Your task to perform on an android device: all mails in gmail Image 0: 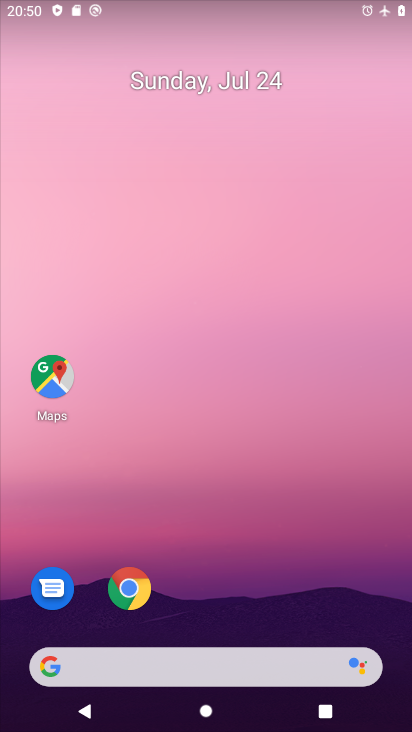
Step 0: drag from (181, 606) to (176, 147)
Your task to perform on an android device: all mails in gmail Image 1: 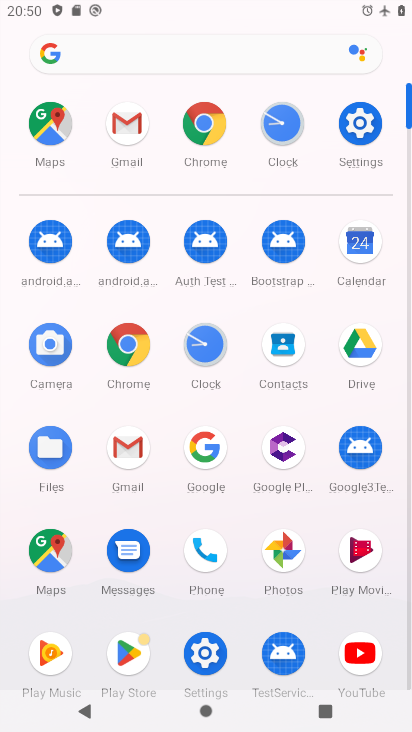
Step 1: click (137, 120)
Your task to perform on an android device: all mails in gmail Image 2: 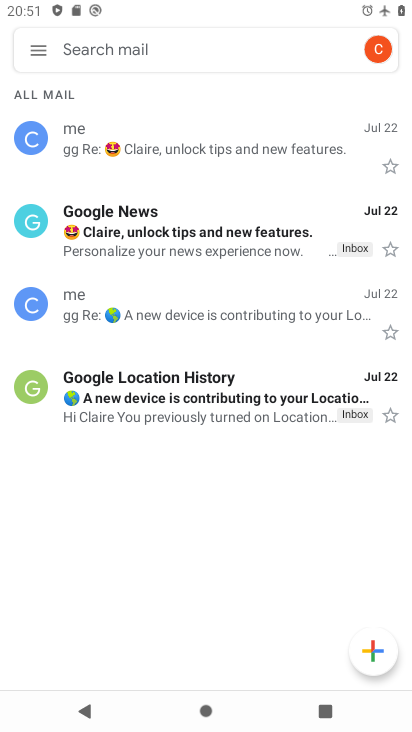
Step 2: task complete